Your task to perform on an android device: check android version Image 0: 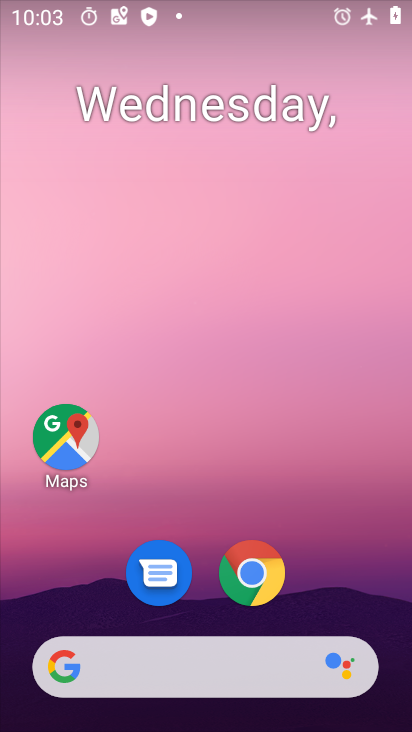
Step 0: drag from (268, 559) to (286, 209)
Your task to perform on an android device: check android version Image 1: 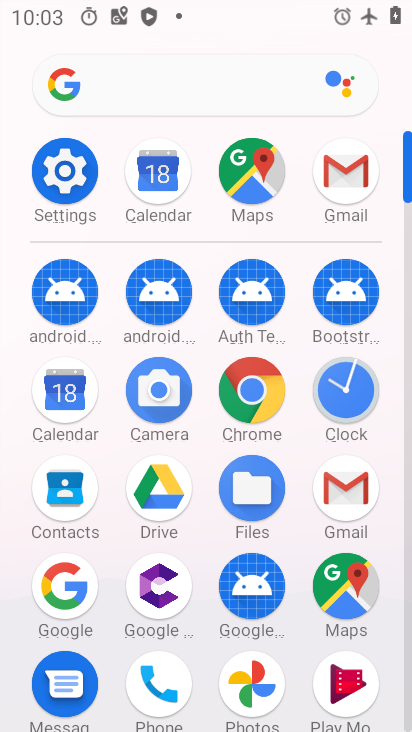
Step 1: click (46, 220)
Your task to perform on an android device: check android version Image 2: 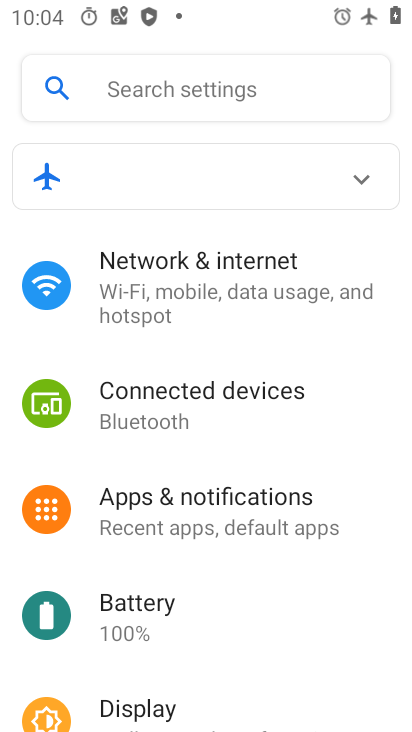
Step 2: drag from (193, 568) to (244, 195)
Your task to perform on an android device: check android version Image 3: 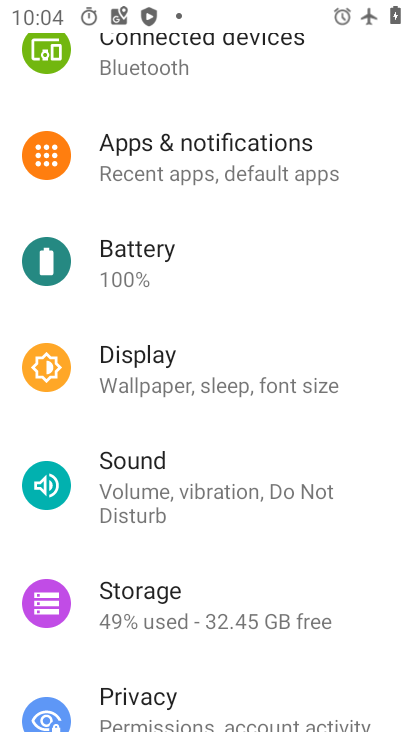
Step 3: drag from (237, 533) to (295, 237)
Your task to perform on an android device: check android version Image 4: 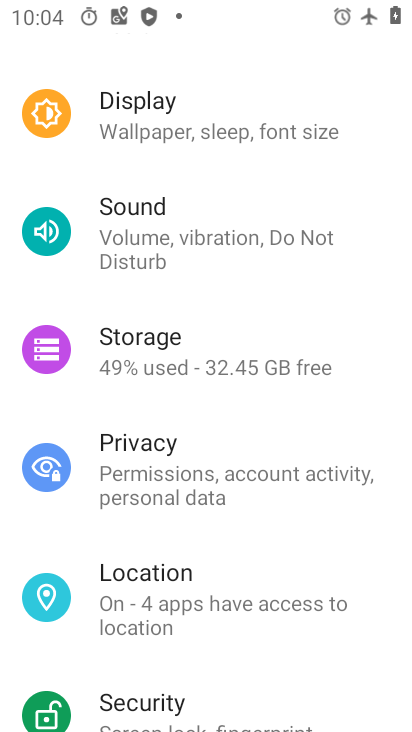
Step 4: drag from (224, 621) to (273, 203)
Your task to perform on an android device: check android version Image 5: 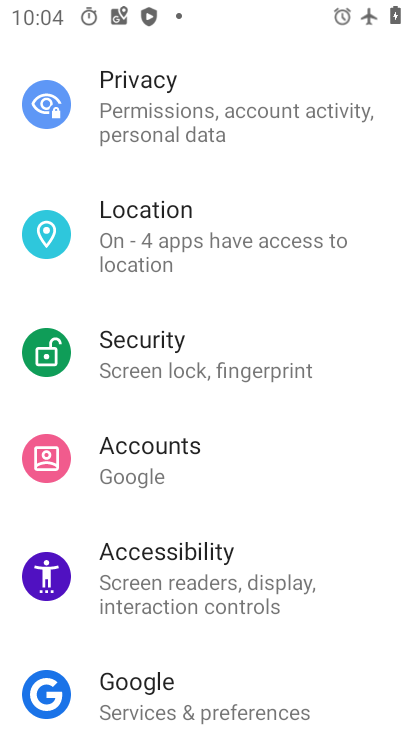
Step 5: drag from (230, 581) to (263, 247)
Your task to perform on an android device: check android version Image 6: 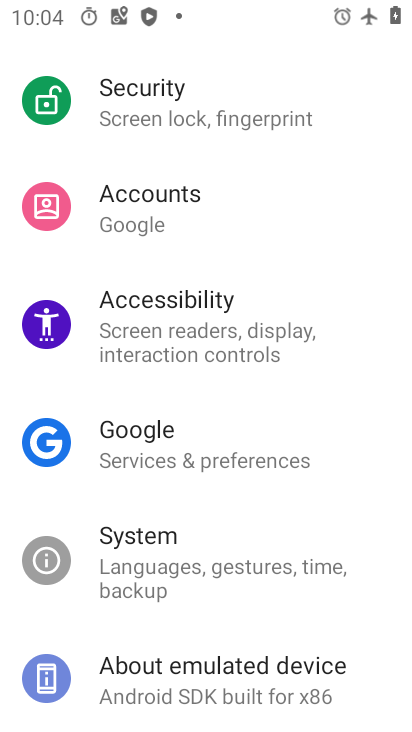
Step 6: drag from (243, 612) to (273, 235)
Your task to perform on an android device: check android version Image 7: 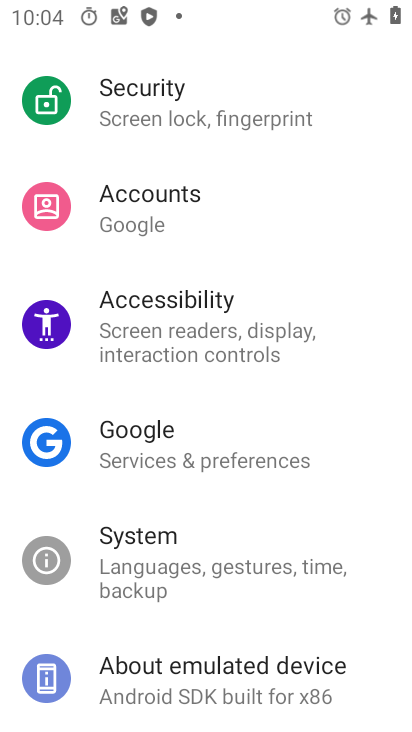
Step 7: click (240, 691)
Your task to perform on an android device: check android version Image 8: 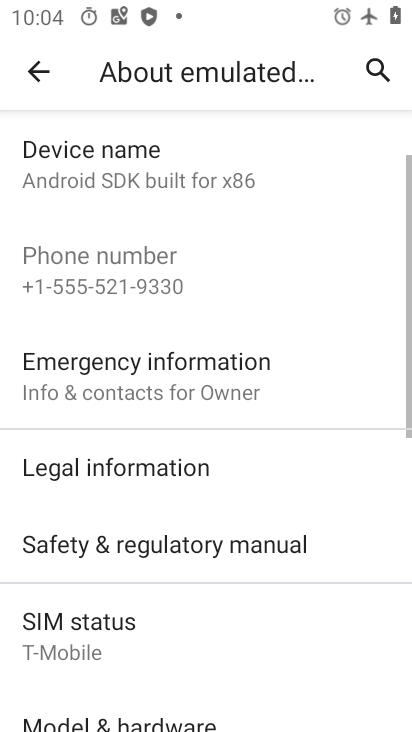
Step 8: drag from (243, 693) to (282, 352)
Your task to perform on an android device: check android version Image 9: 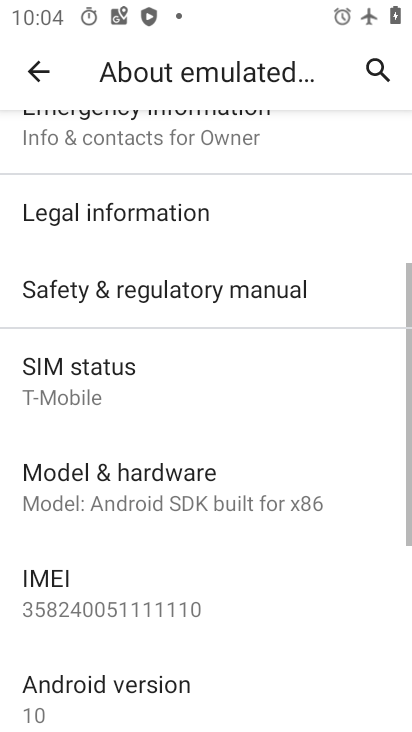
Step 9: click (214, 678)
Your task to perform on an android device: check android version Image 10: 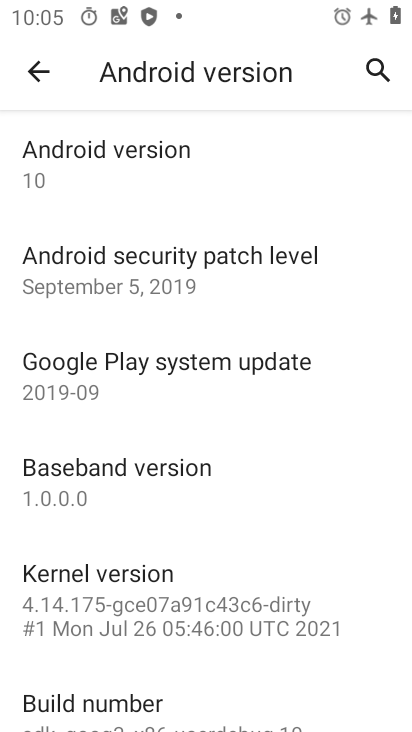
Step 10: task complete